Your task to perform on an android device: turn on bluetooth scan Image 0: 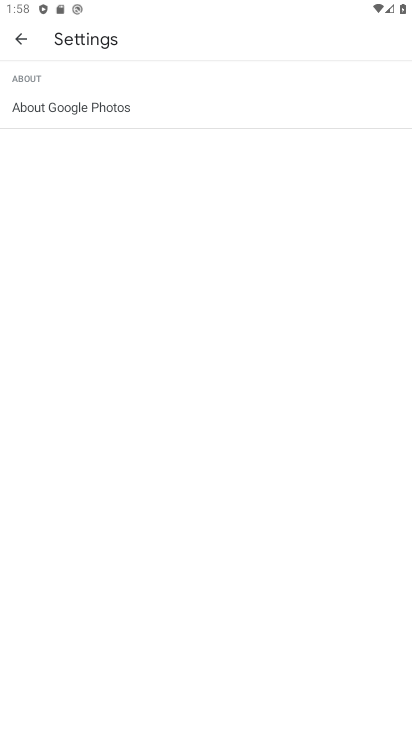
Step 0: press home button
Your task to perform on an android device: turn on bluetooth scan Image 1: 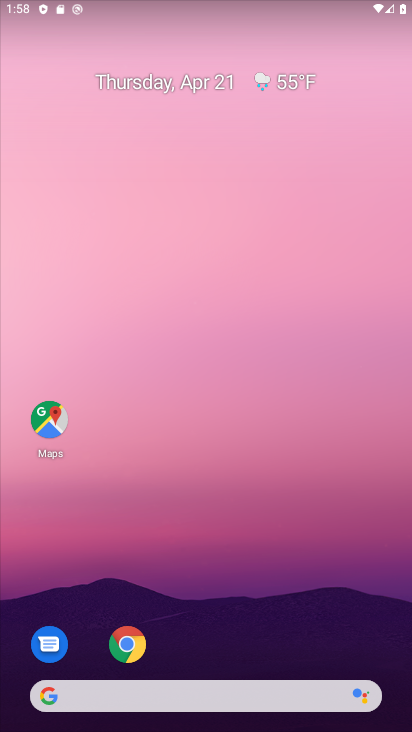
Step 1: drag from (277, 594) to (148, 4)
Your task to perform on an android device: turn on bluetooth scan Image 2: 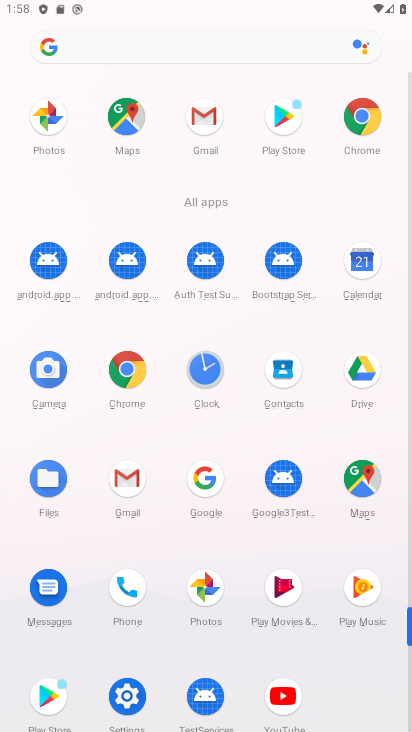
Step 2: drag from (170, 202) to (154, 35)
Your task to perform on an android device: turn on bluetooth scan Image 3: 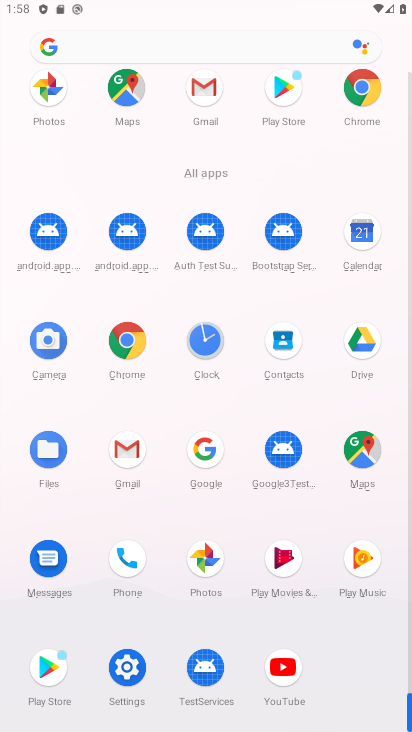
Step 3: click (126, 669)
Your task to perform on an android device: turn on bluetooth scan Image 4: 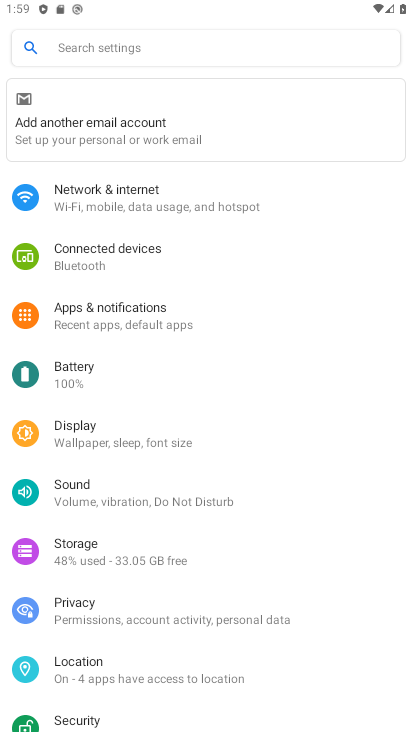
Step 4: drag from (160, 650) to (123, 125)
Your task to perform on an android device: turn on bluetooth scan Image 5: 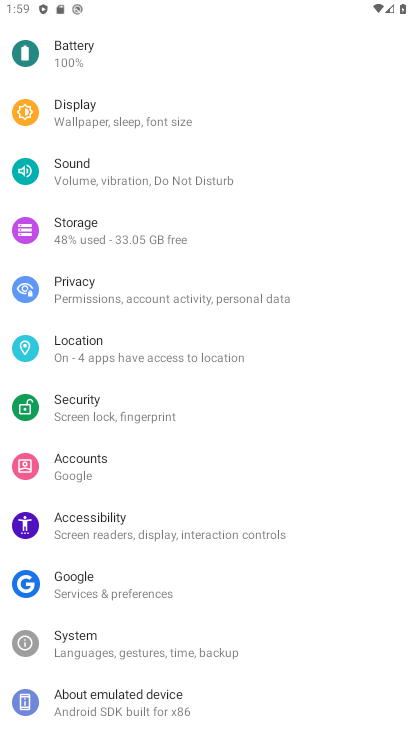
Step 5: click (112, 346)
Your task to perform on an android device: turn on bluetooth scan Image 6: 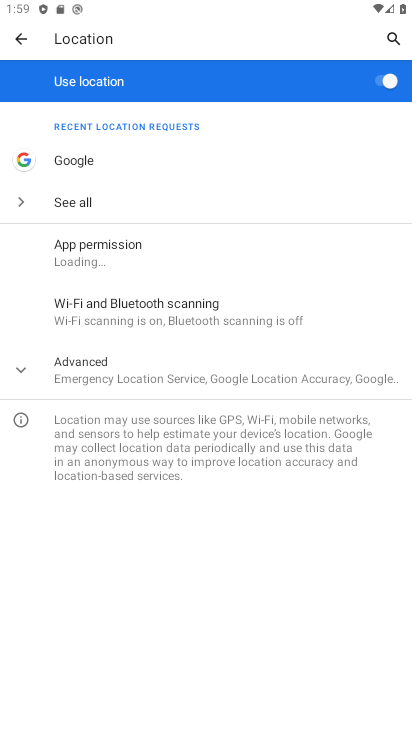
Step 6: click (188, 322)
Your task to perform on an android device: turn on bluetooth scan Image 7: 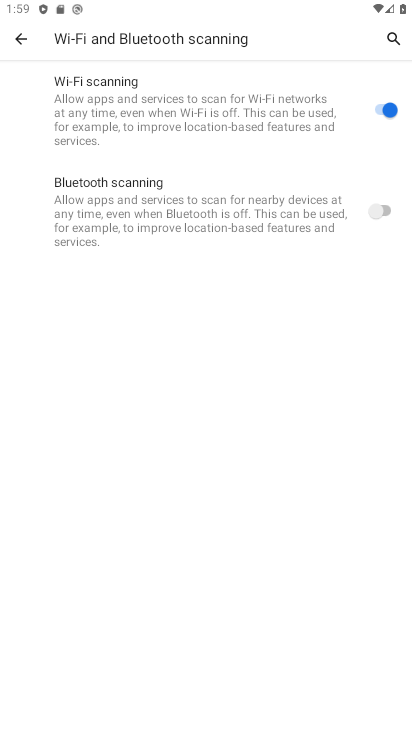
Step 7: click (253, 212)
Your task to perform on an android device: turn on bluetooth scan Image 8: 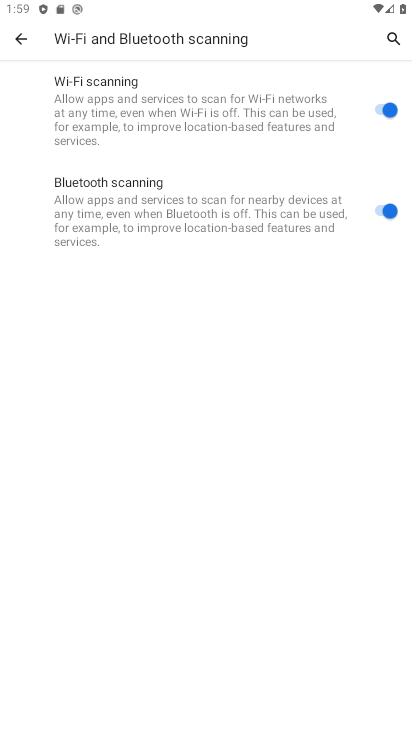
Step 8: task complete